Your task to perform on an android device: When is my next meeting? Image 0: 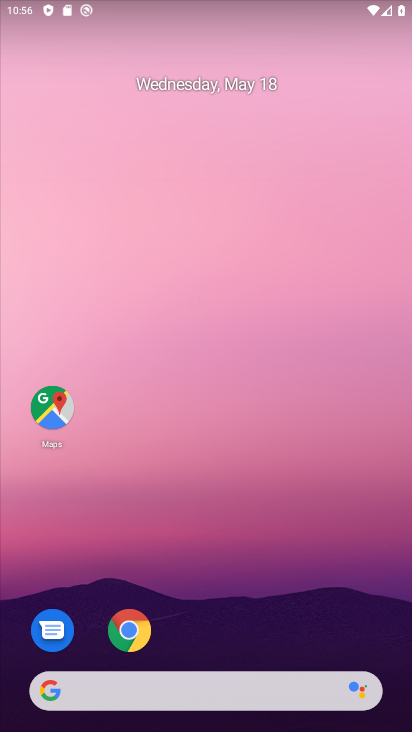
Step 0: drag from (230, 636) to (283, 39)
Your task to perform on an android device: When is my next meeting? Image 1: 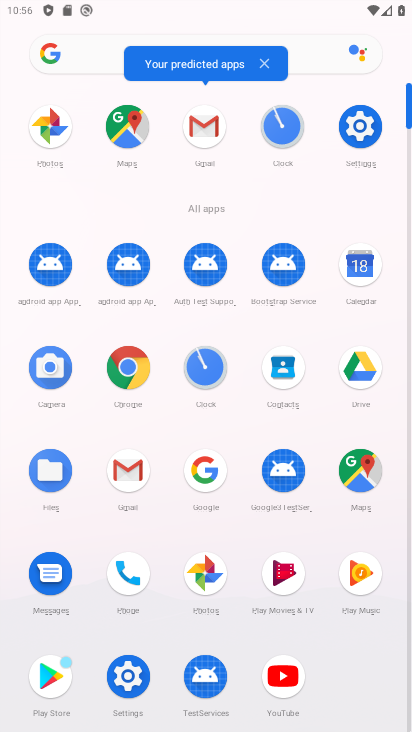
Step 1: click (366, 274)
Your task to perform on an android device: When is my next meeting? Image 2: 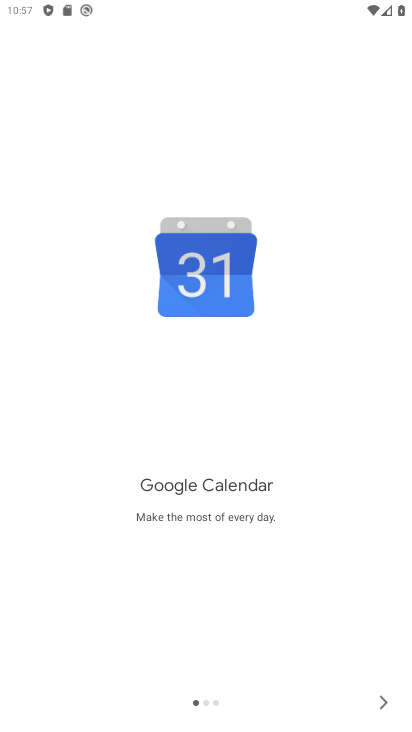
Step 2: click (385, 700)
Your task to perform on an android device: When is my next meeting? Image 3: 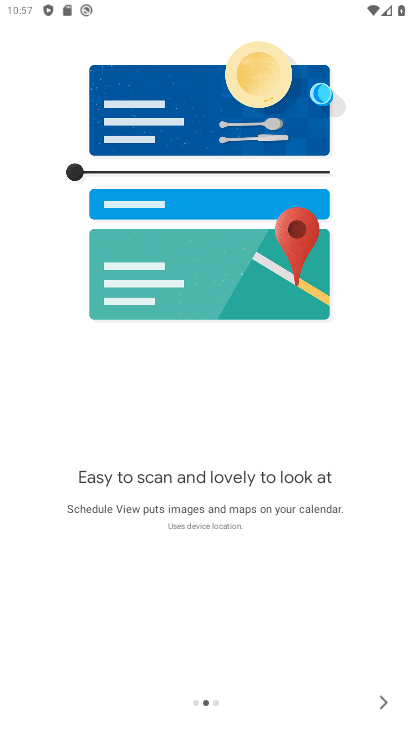
Step 3: click (384, 700)
Your task to perform on an android device: When is my next meeting? Image 4: 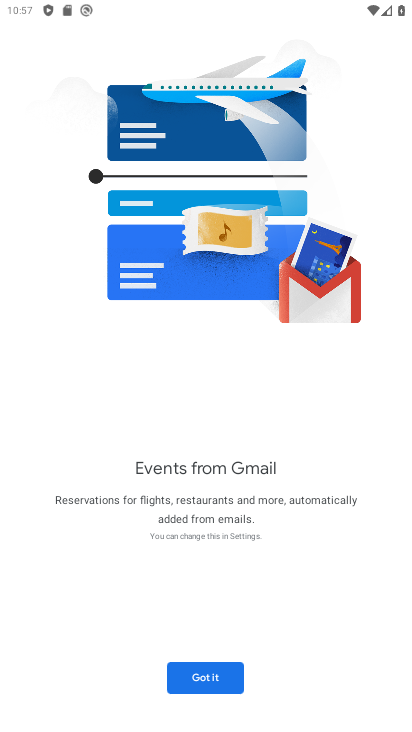
Step 4: click (227, 680)
Your task to perform on an android device: When is my next meeting? Image 5: 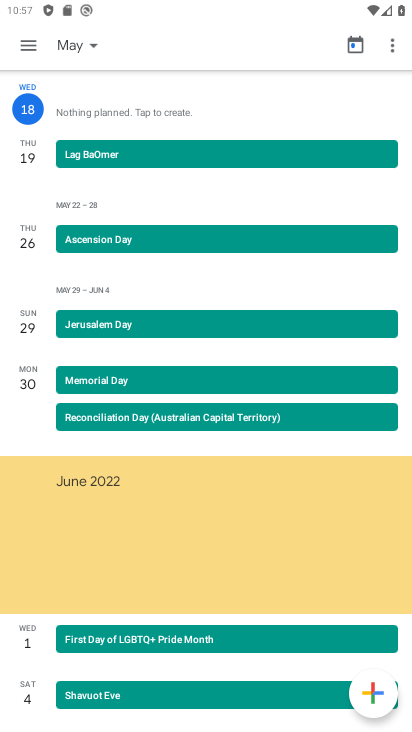
Step 5: click (33, 46)
Your task to perform on an android device: When is my next meeting? Image 6: 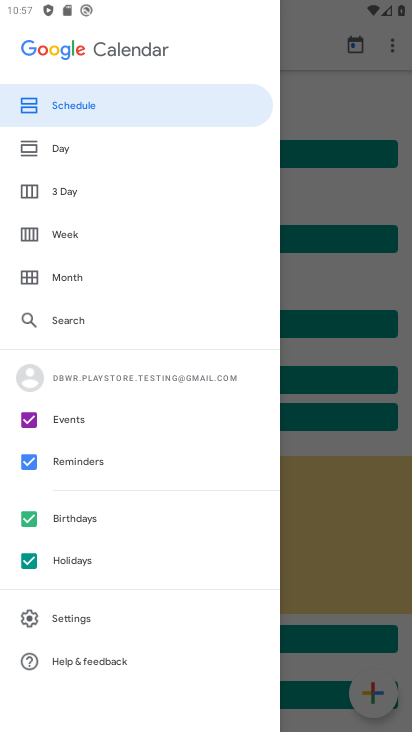
Step 6: click (119, 109)
Your task to perform on an android device: When is my next meeting? Image 7: 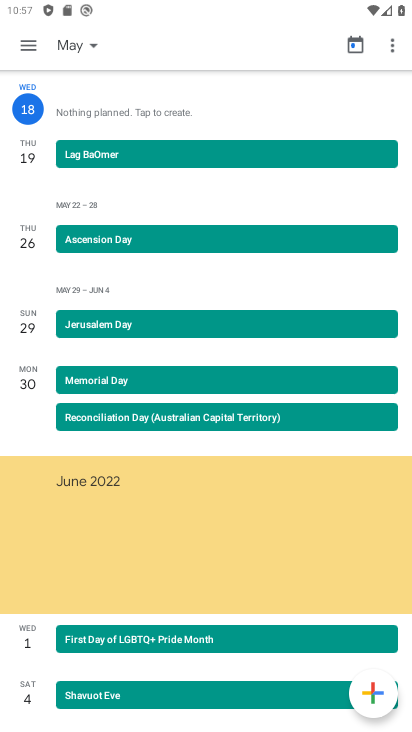
Step 7: task complete